Your task to perform on an android device: visit the assistant section in the google photos Image 0: 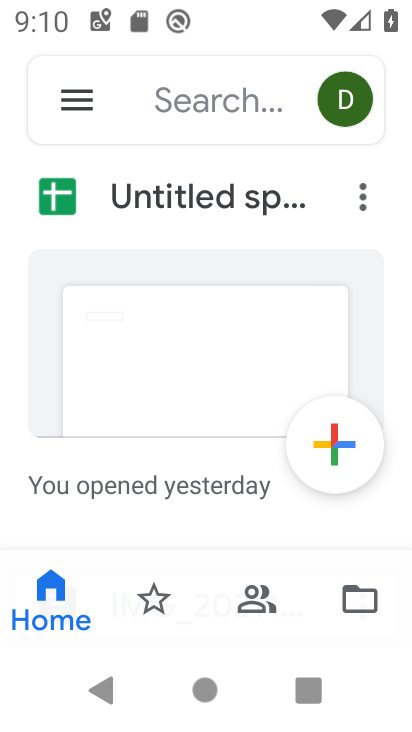
Step 0: drag from (229, 424) to (235, 339)
Your task to perform on an android device: visit the assistant section in the google photos Image 1: 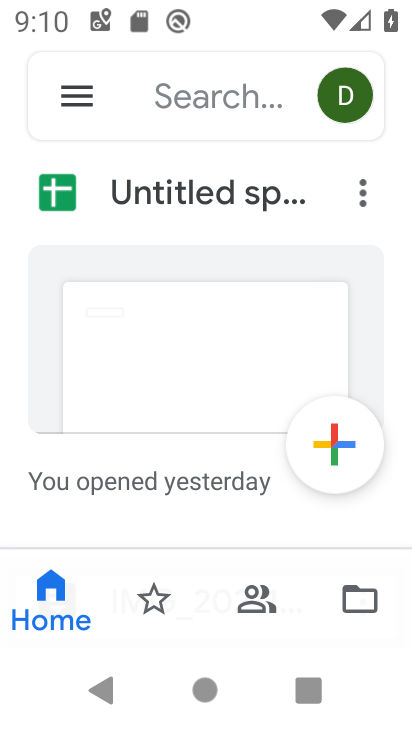
Step 1: press home button
Your task to perform on an android device: visit the assistant section in the google photos Image 2: 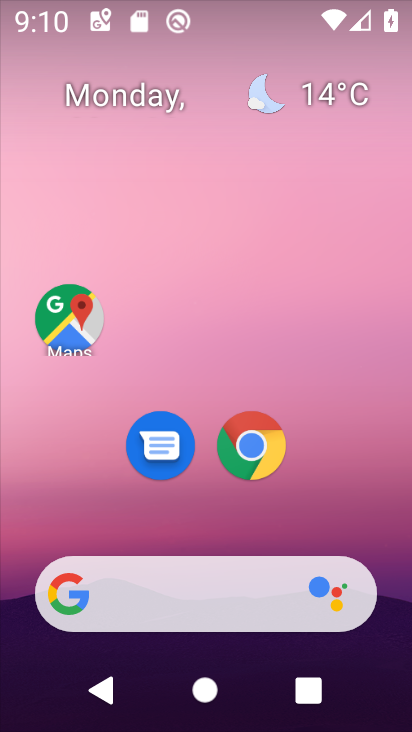
Step 2: drag from (189, 524) to (220, 33)
Your task to perform on an android device: visit the assistant section in the google photos Image 3: 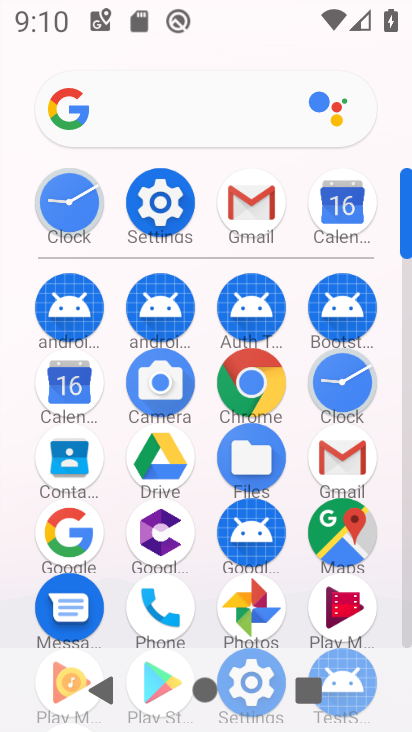
Step 3: click (245, 596)
Your task to perform on an android device: visit the assistant section in the google photos Image 4: 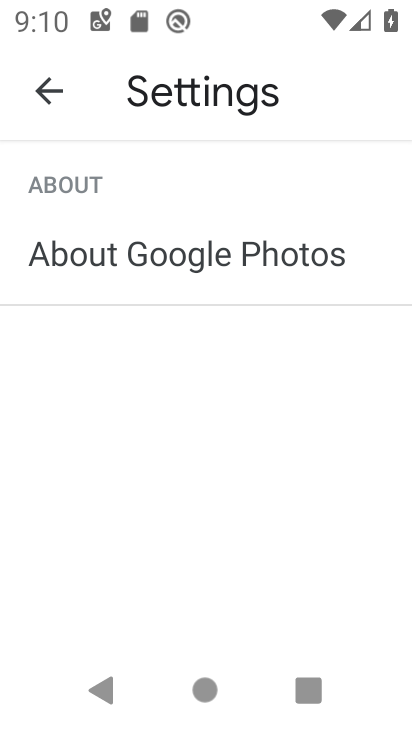
Step 4: click (61, 92)
Your task to perform on an android device: visit the assistant section in the google photos Image 5: 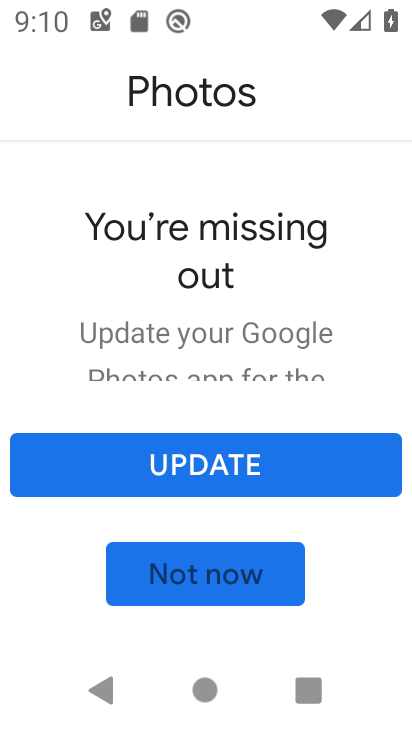
Step 5: click (228, 468)
Your task to perform on an android device: visit the assistant section in the google photos Image 6: 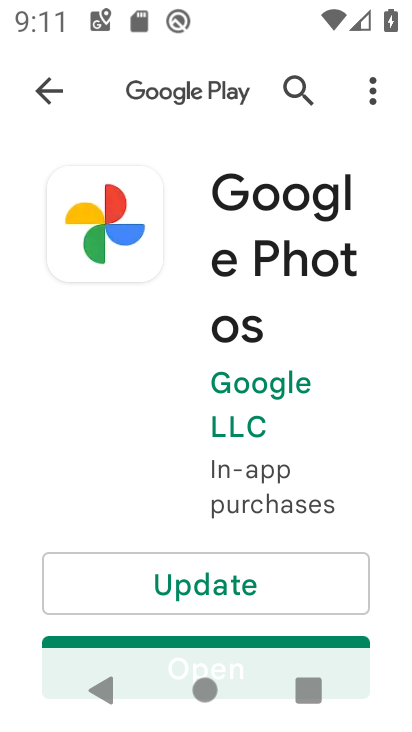
Step 6: click (222, 582)
Your task to perform on an android device: visit the assistant section in the google photos Image 7: 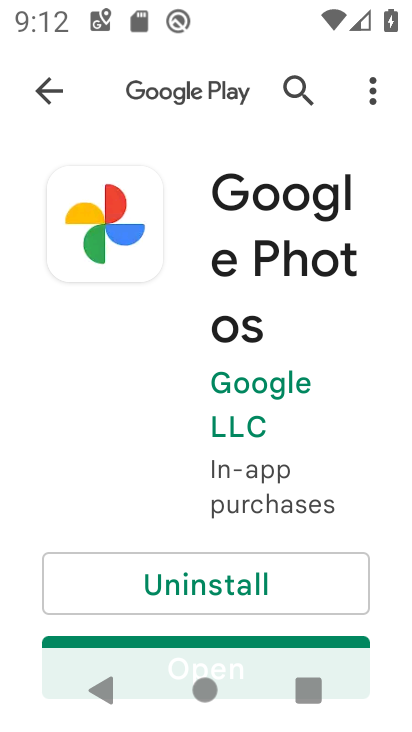
Step 7: drag from (138, 514) to (115, 156)
Your task to perform on an android device: visit the assistant section in the google photos Image 8: 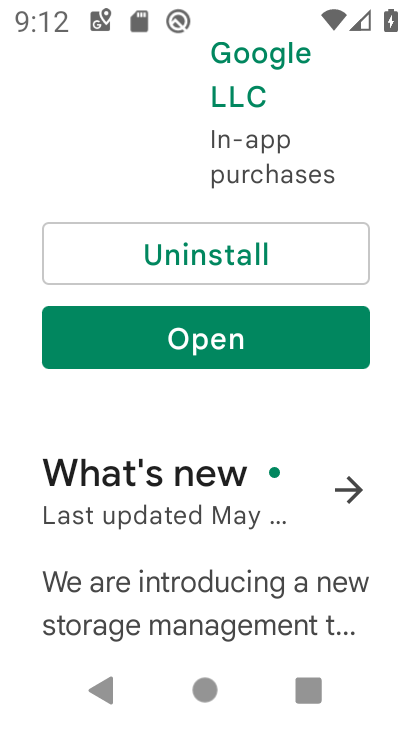
Step 8: click (190, 342)
Your task to perform on an android device: visit the assistant section in the google photos Image 9: 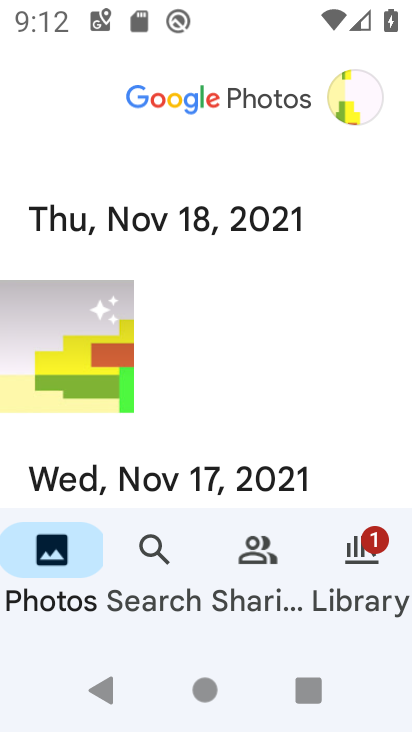
Step 9: click (148, 542)
Your task to perform on an android device: visit the assistant section in the google photos Image 10: 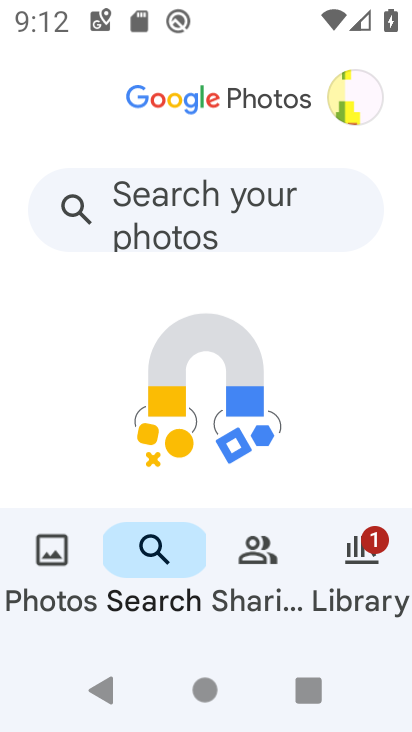
Step 10: click (140, 543)
Your task to perform on an android device: visit the assistant section in the google photos Image 11: 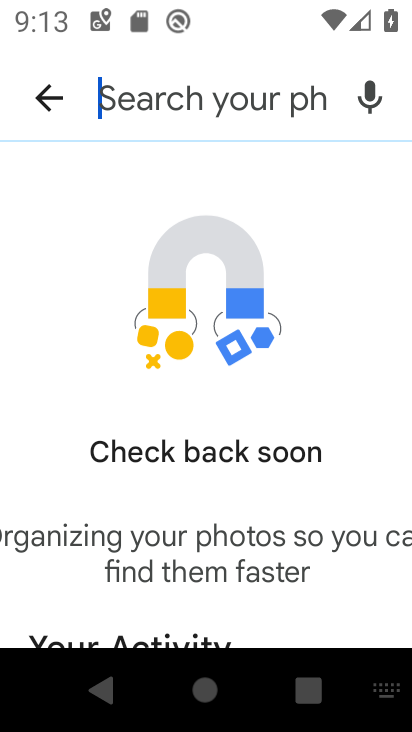
Step 11: type "assistance"
Your task to perform on an android device: visit the assistant section in the google photos Image 12: 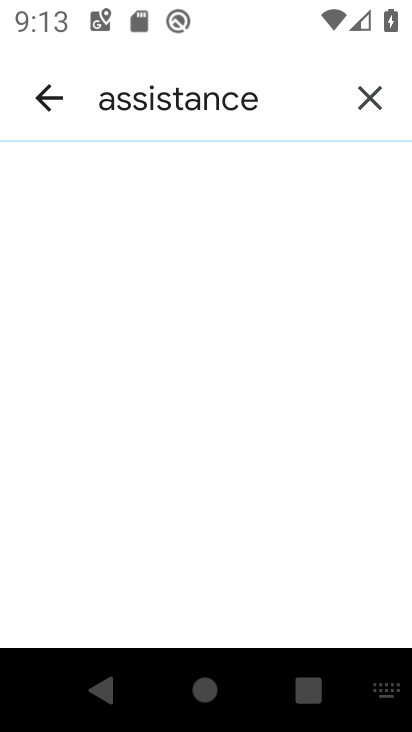
Step 12: task complete